Your task to perform on an android device: move a message to another label in the gmail app Image 0: 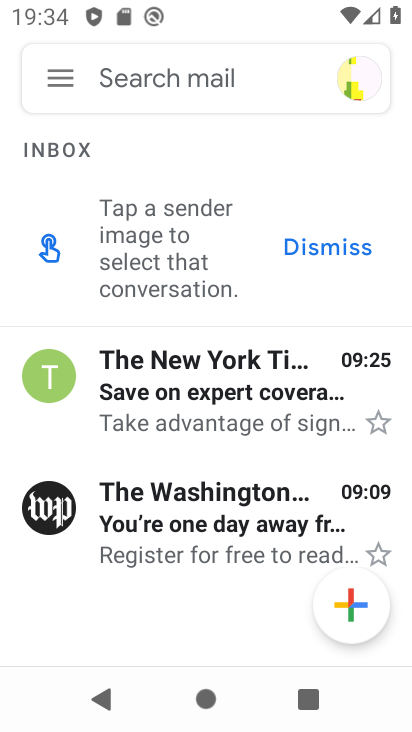
Step 0: press home button
Your task to perform on an android device: move a message to another label in the gmail app Image 1: 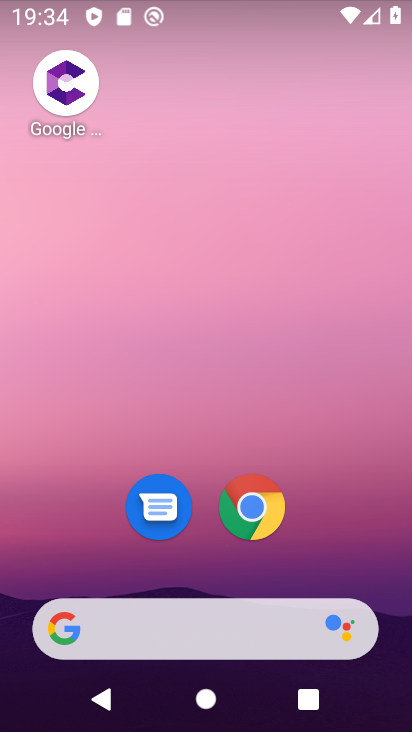
Step 1: drag from (357, 526) to (351, 114)
Your task to perform on an android device: move a message to another label in the gmail app Image 2: 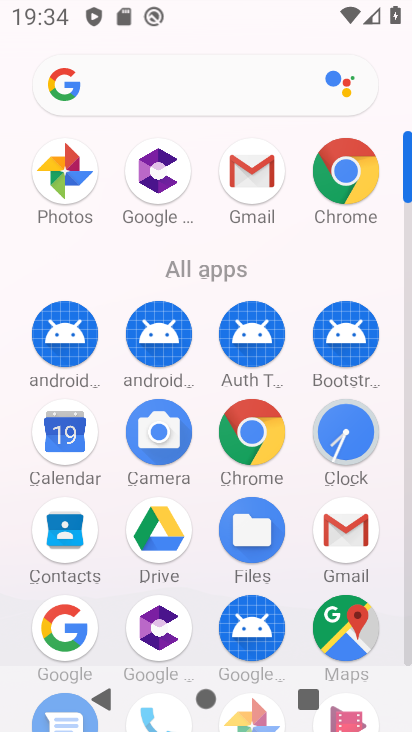
Step 2: click (340, 523)
Your task to perform on an android device: move a message to another label in the gmail app Image 3: 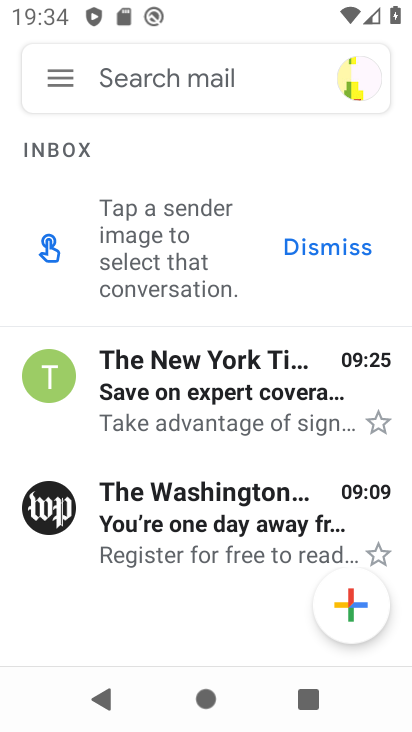
Step 3: click (238, 385)
Your task to perform on an android device: move a message to another label in the gmail app Image 4: 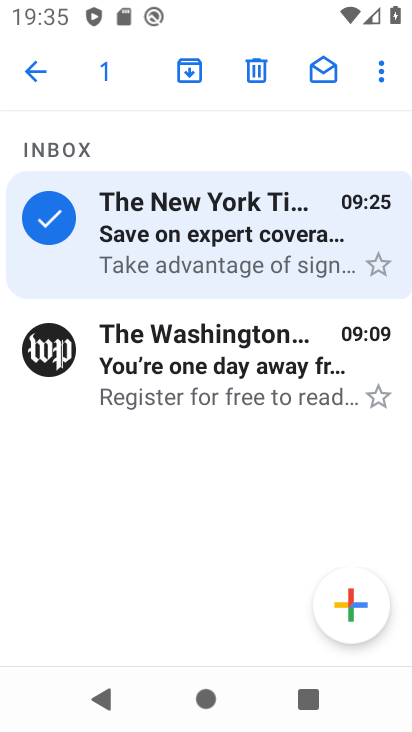
Step 4: click (378, 61)
Your task to perform on an android device: move a message to another label in the gmail app Image 5: 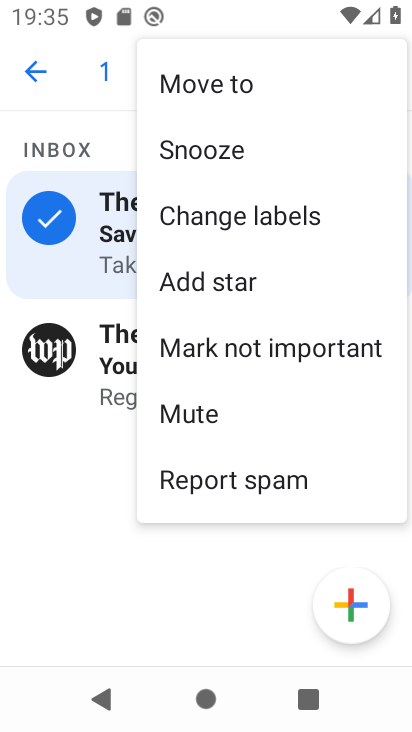
Step 5: click (280, 207)
Your task to perform on an android device: move a message to another label in the gmail app Image 6: 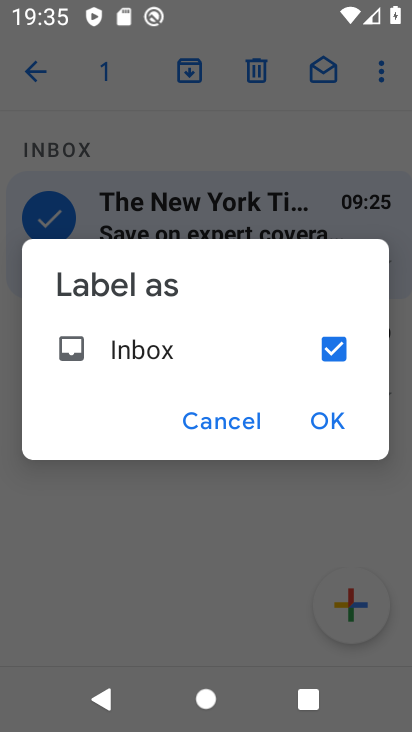
Step 6: click (329, 345)
Your task to perform on an android device: move a message to another label in the gmail app Image 7: 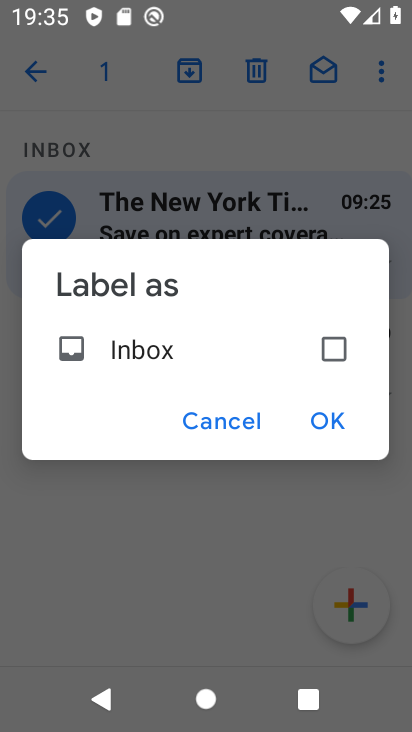
Step 7: click (339, 419)
Your task to perform on an android device: move a message to another label in the gmail app Image 8: 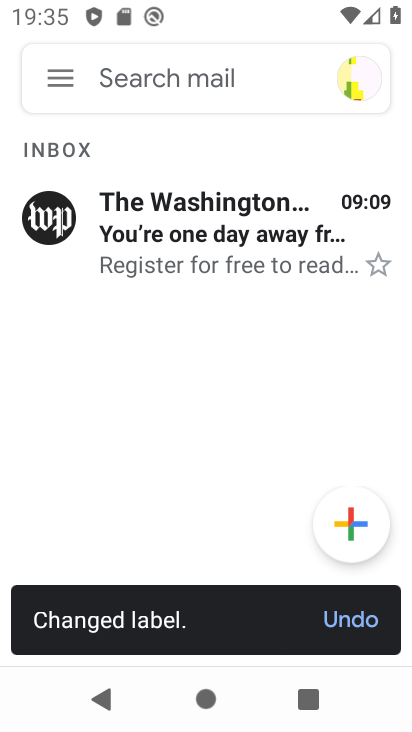
Step 8: task complete